Your task to perform on an android device: add a contact in the contacts app Image 0: 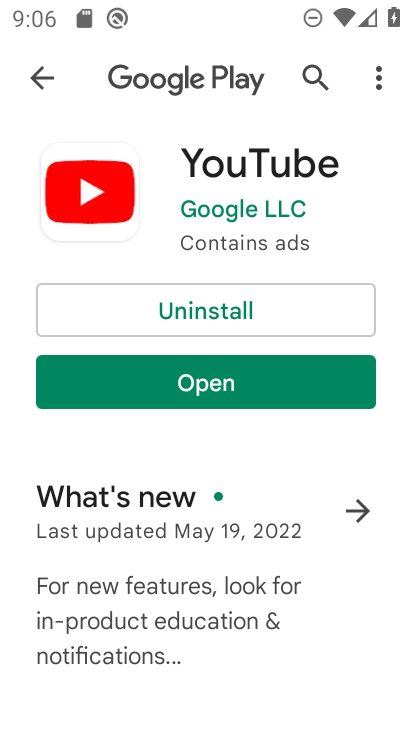
Step 0: press home button
Your task to perform on an android device: add a contact in the contacts app Image 1: 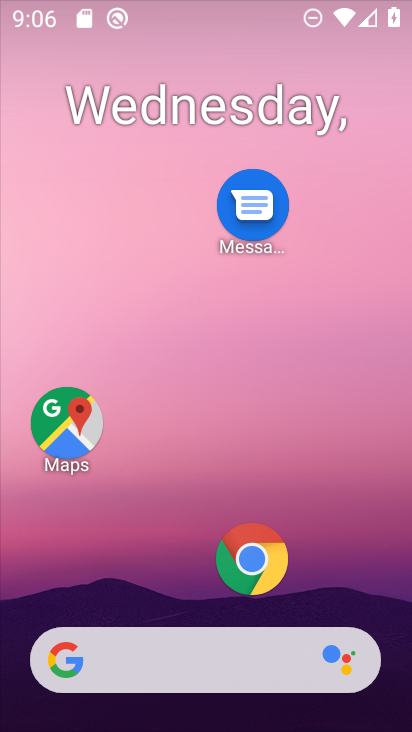
Step 1: drag from (240, 658) to (244, 164)
Your task to perform on an android device: add a contact in the contacts app Image 2: 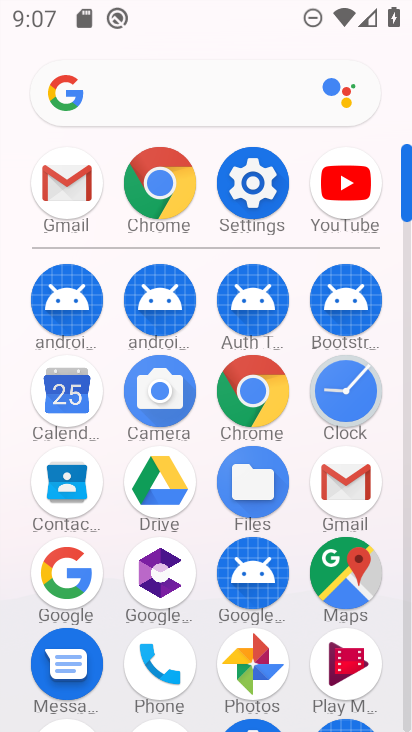
Step 2: click (76, 503)
Your task to perform on an android device: add a contact in the contacts app Image 3: 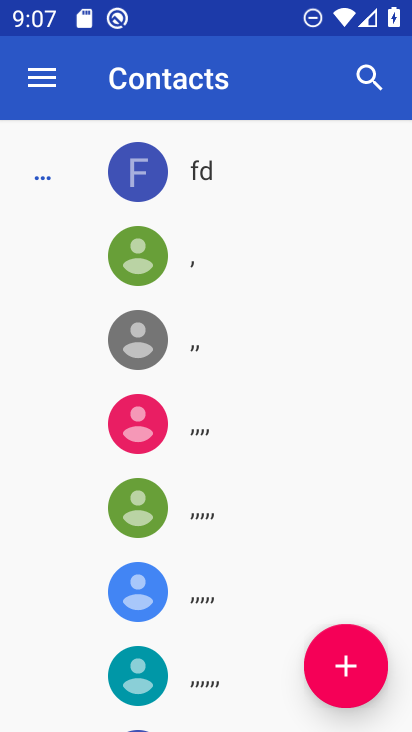
Step 3: click (364, 692)
Your task to perform on an android device: add a contact in the contacts app Image 4: 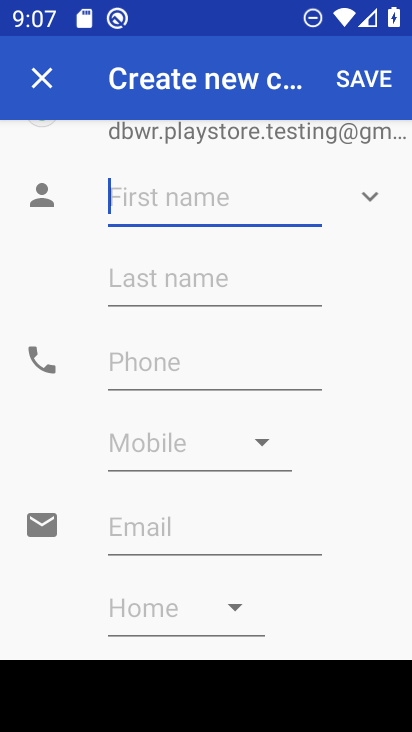
Step 4: type "dhkjyhr"
Your task to perform on an android device: add a contact in the contacts app Image 5: 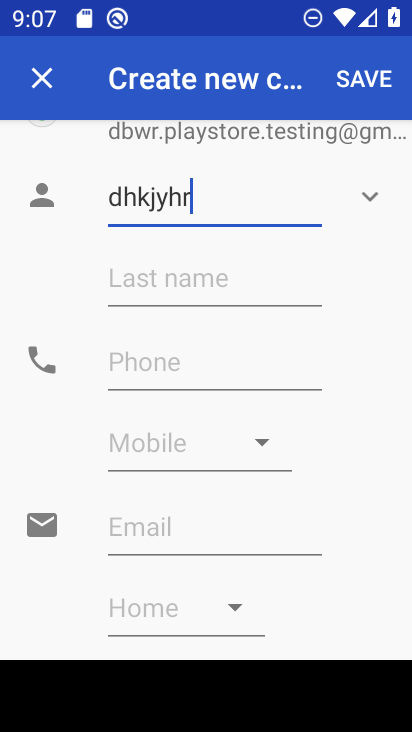
Step 5: click (190, 354)
Your task to perform on an android device: add a contact in the contacts app Image 6: 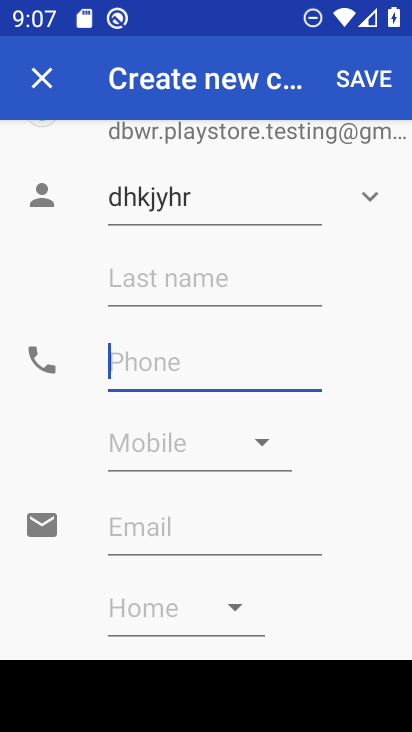
Step 6: type "4568797675"
Your task to perform on an android device: add a contact in the contacts app Image 7: 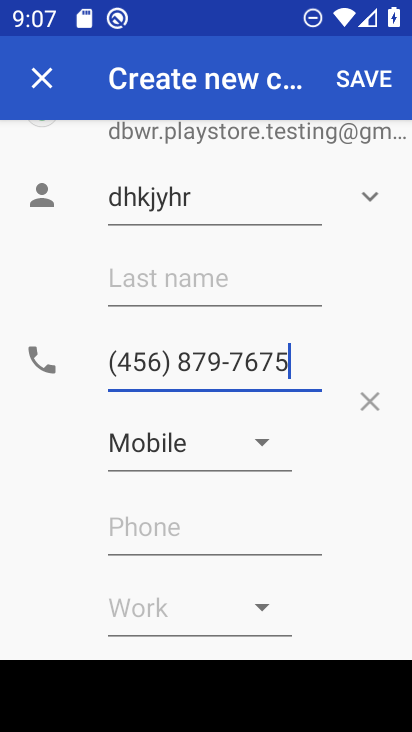
Step 7: click (366, 83)
Your task to perform on an android device: add a contact in the contacts app Image 8: 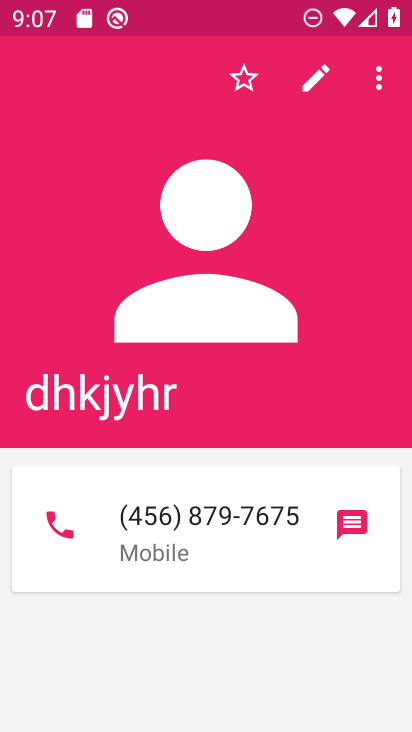
Step 8: task complete